Your task to perform on an android device: turn off translation in the chrome app Image 0: 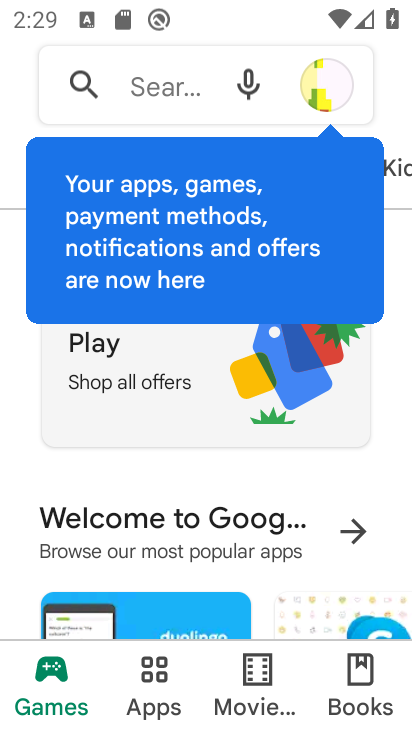
Step 0: press home button
Your task to perform on an android device: turn off translation in the chrome app Image 1: 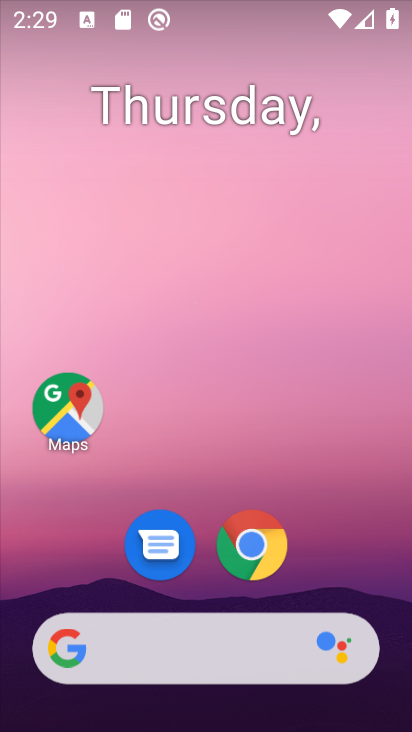
Step 1: click (263, 550)
Your task to perform on an android device: turn off translation in the chrome app Image 2: 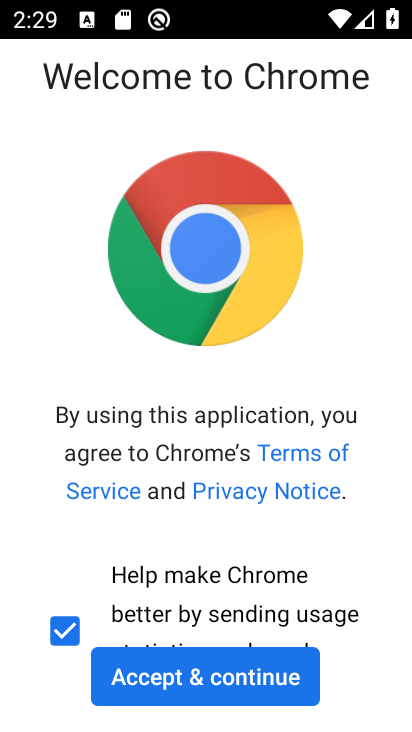
Step 2: click (251, 687)
Your task to perform on an android device: turn off translation in the chrome app Image 3: 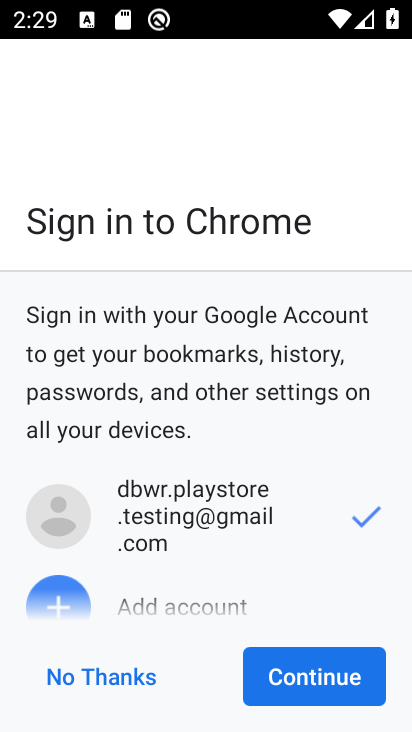
Step 3: click (282, 686)
Your task to perform on an android device: turn off translation in the chrome app Image 4: 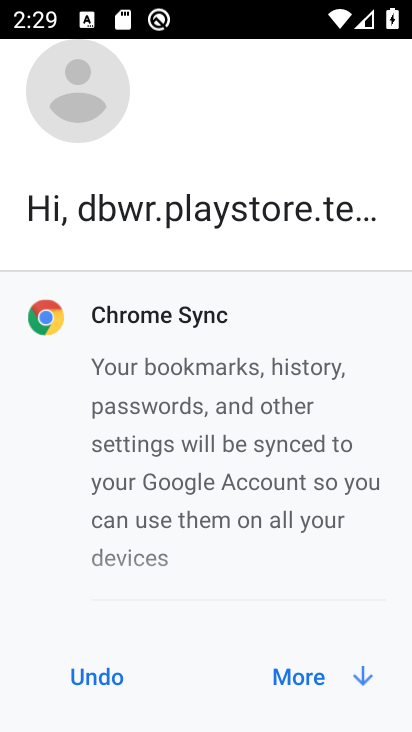
Step 4: click (313, 676)
Your task to perform on an android device: turn off translation in the chrome app Image 5: 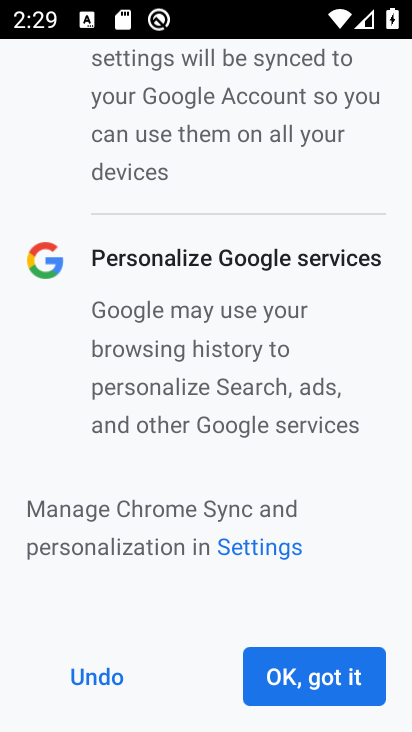
Step 5: click (338, 671)
Your task to perform on an android device: turn off translation in the chrome app Image 6: 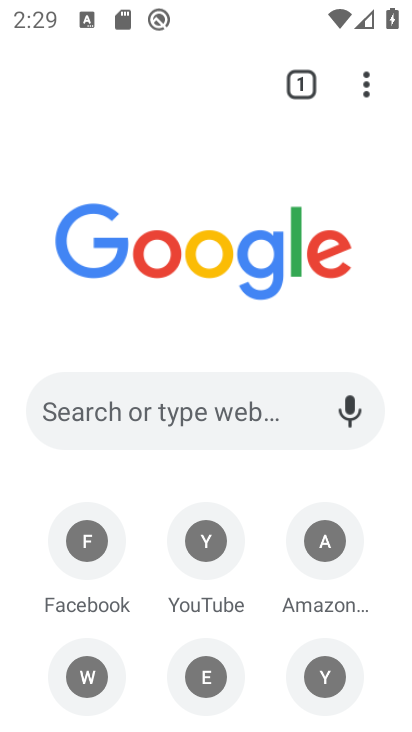
Step 6: click (365, 68)
Your task to perform on an android device: turn off translation in the chrome app Image 7: 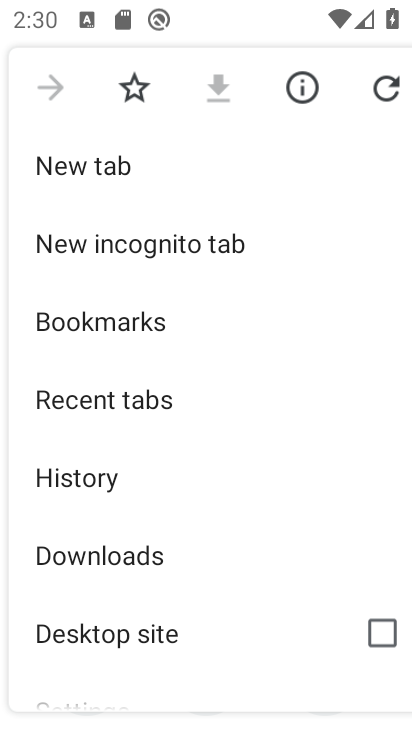
Step 7: drag from (157, 646) to (189, 112)
Your task to perform on an android device: turn off translation in the chrome app Image 8: 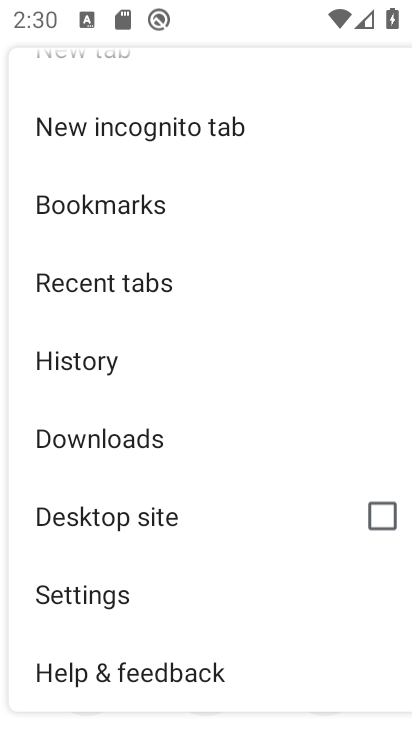
Step 8: click (77, 596)
Your task to perform on an android device: turn off translation in the chrome app Image 9: 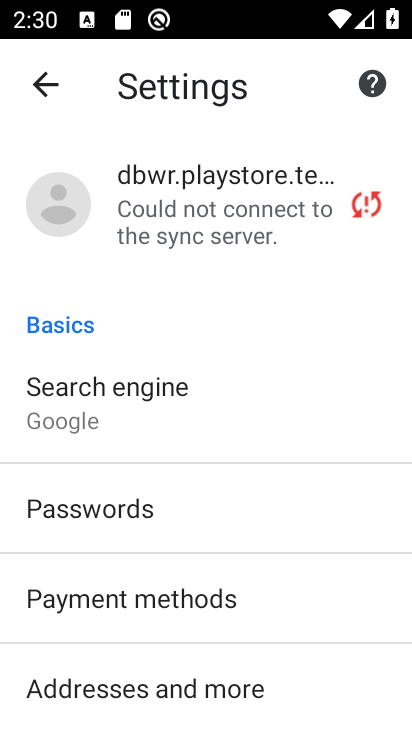
Step 9: drag from (193, 674) to (271, 208)
Your task to perform on an android device: turn off translation in the chrome app Image 10: 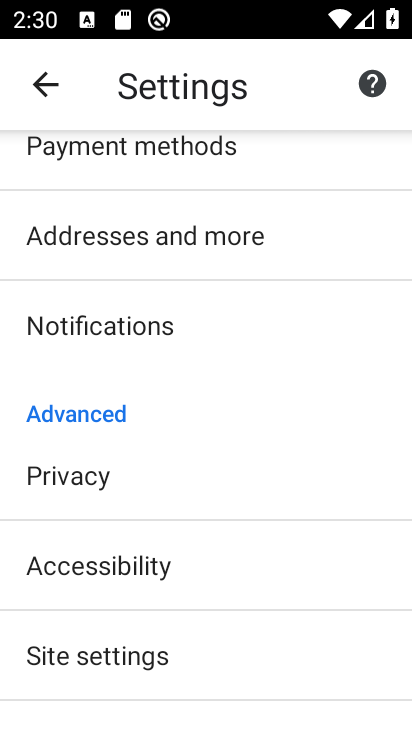
Step 10: drag from (252, 653) to (322, 232)
Your task to perform on an android device: turn off translation in the chrome app Image 11: 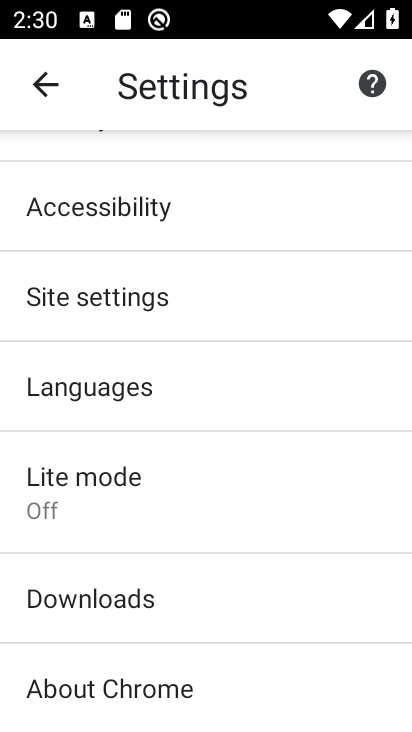
Step 11: click (143, 385)
Your task to perform on an android device: turn off translation in the chrome app Image 12: 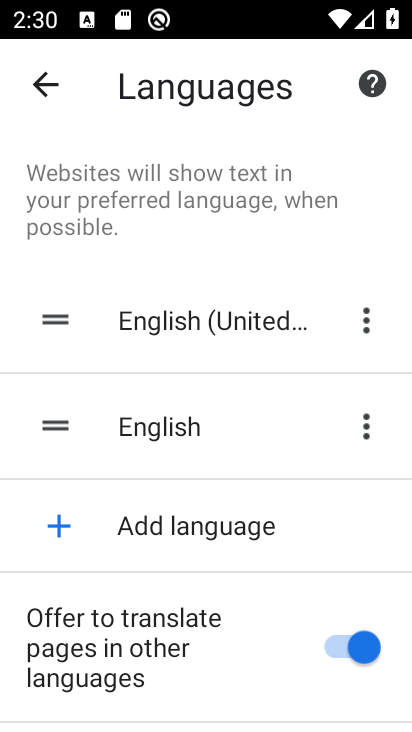
Step 12: click (363, 645)
Your task to perform on an android device: turn off translation in the chrome app Image 13: 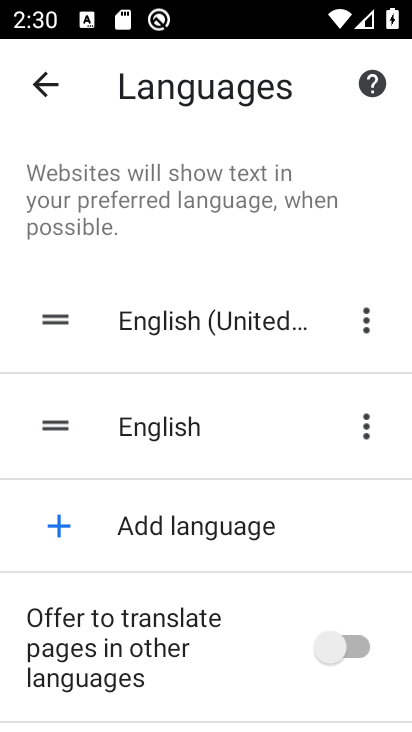
Step 13: task complete